Your task to perform on an android device: set an alarm Image 0: 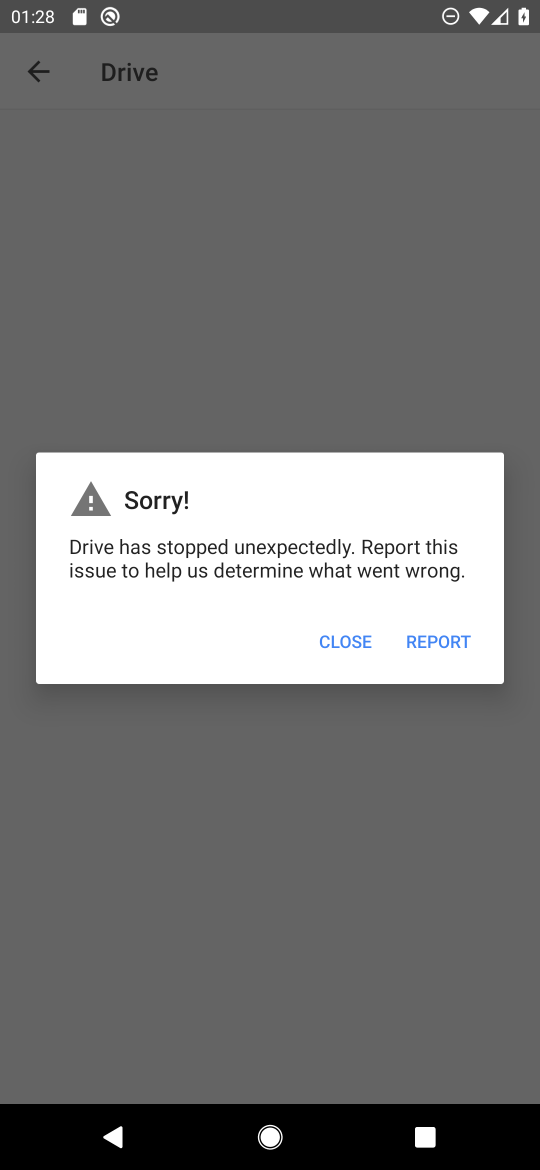
Step 0: press back button
Your task to perform on an android device: set an alarm Image 1: 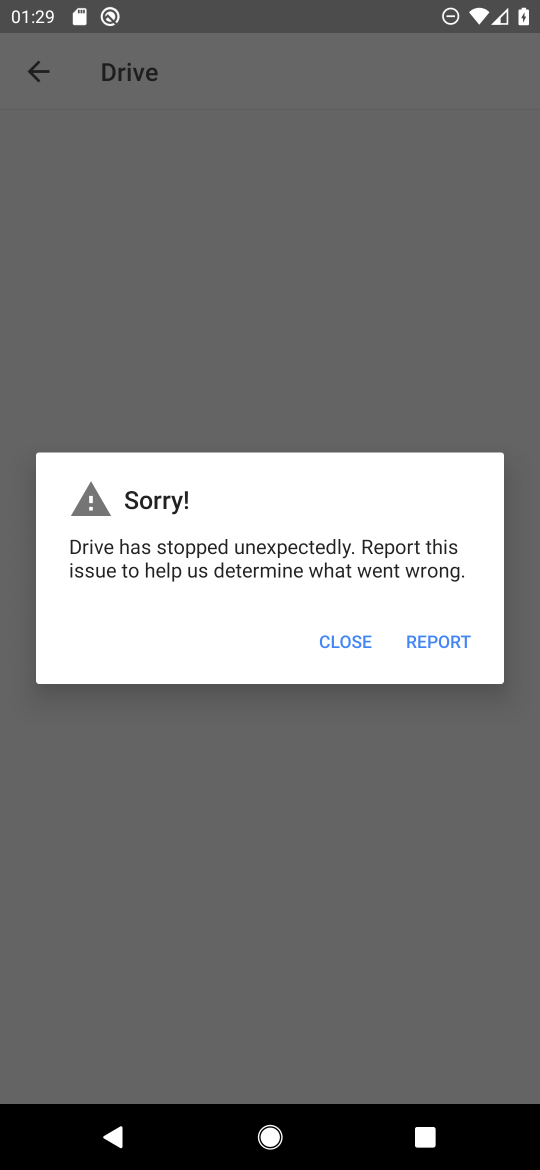
Step 1: click (340, 634)
Your task to perform on an android device: set an alarm Image 2: 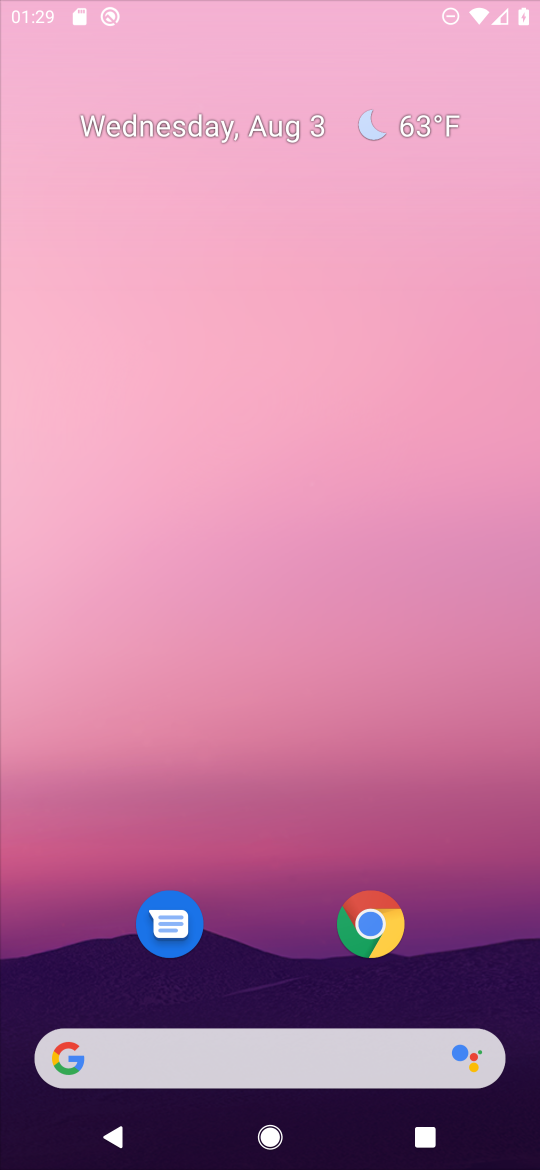
Step 2: press back button
Your task to perform on an android device: set an alarm Image 3: 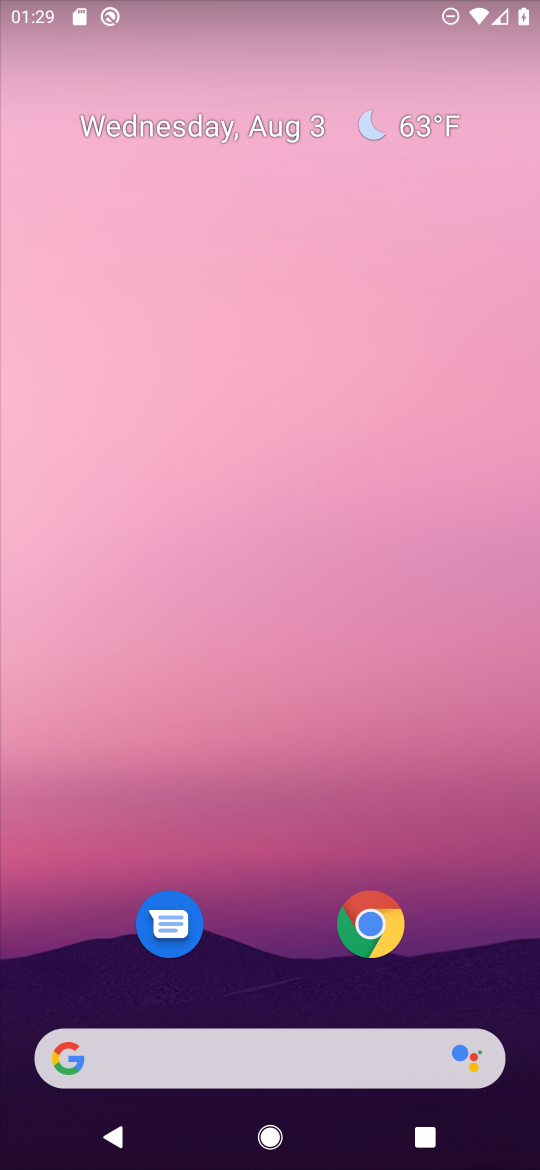
Step 3: drag from (342, 173) to (362, 0)
Your task to perform on an android device: set an alarm Image 4: 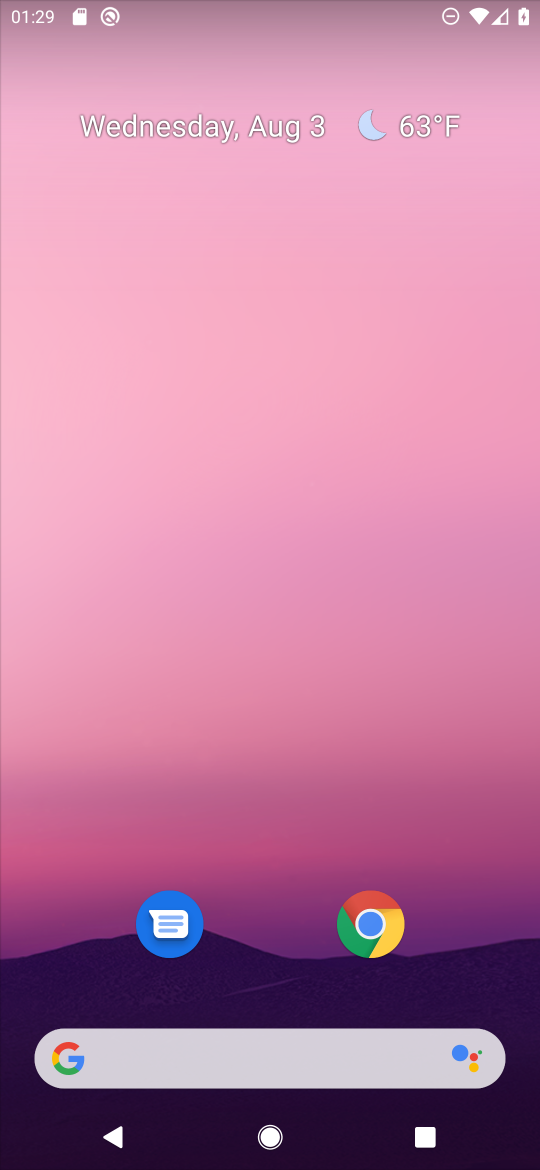
Step 4: drag from (247, 591) to (286, 45)
Your task to perform on an android device: set an alarm Image 5: 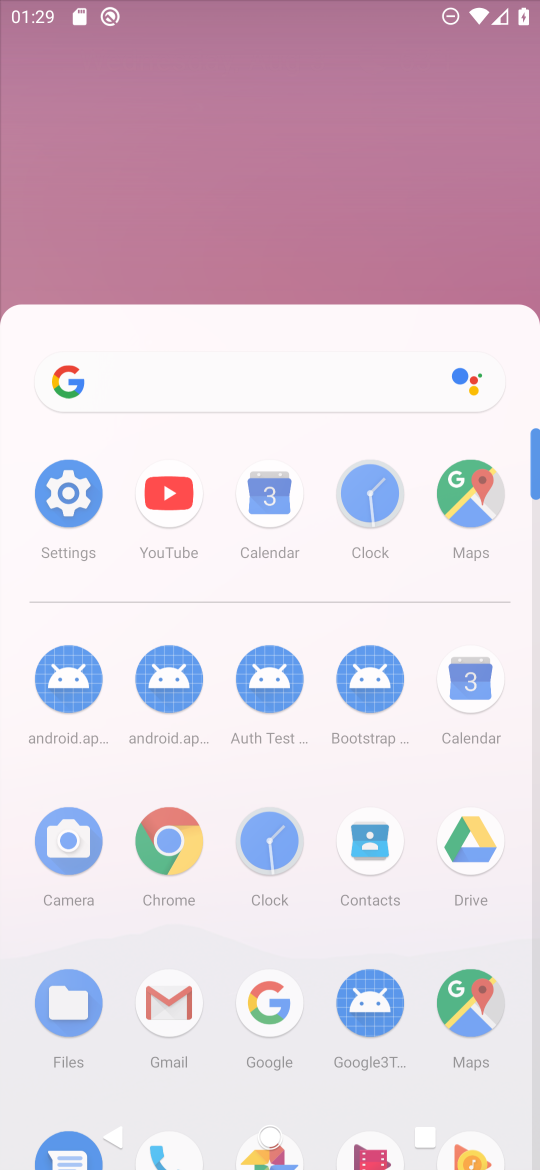
Step 5: click (371, 590)
Your task to perform on an android device: set an alarm Image 6: 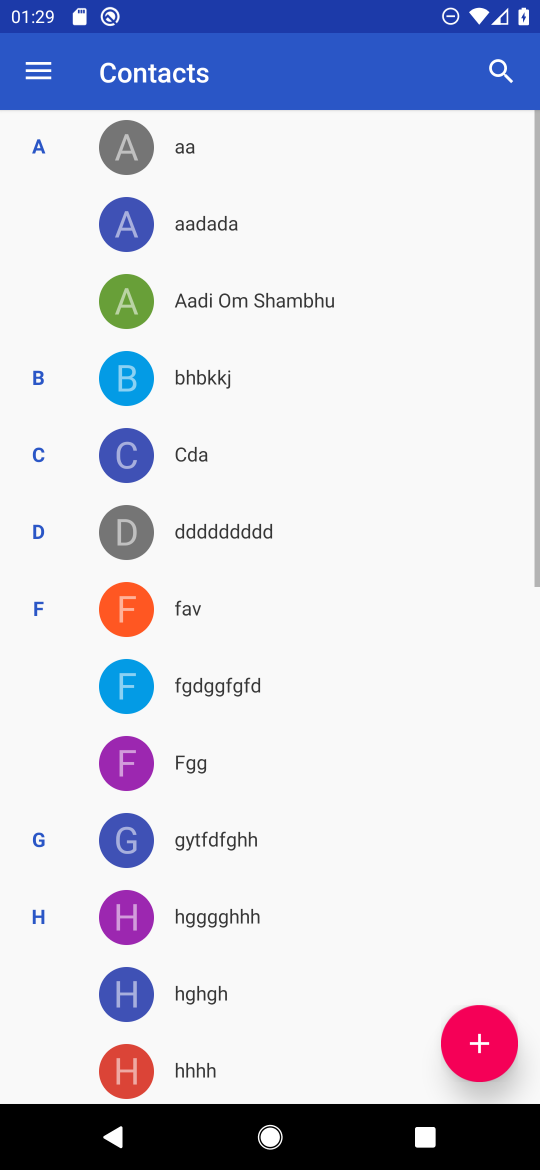
Step 6: press back button
Your task to perform on an android device: set an alarm Image 7: 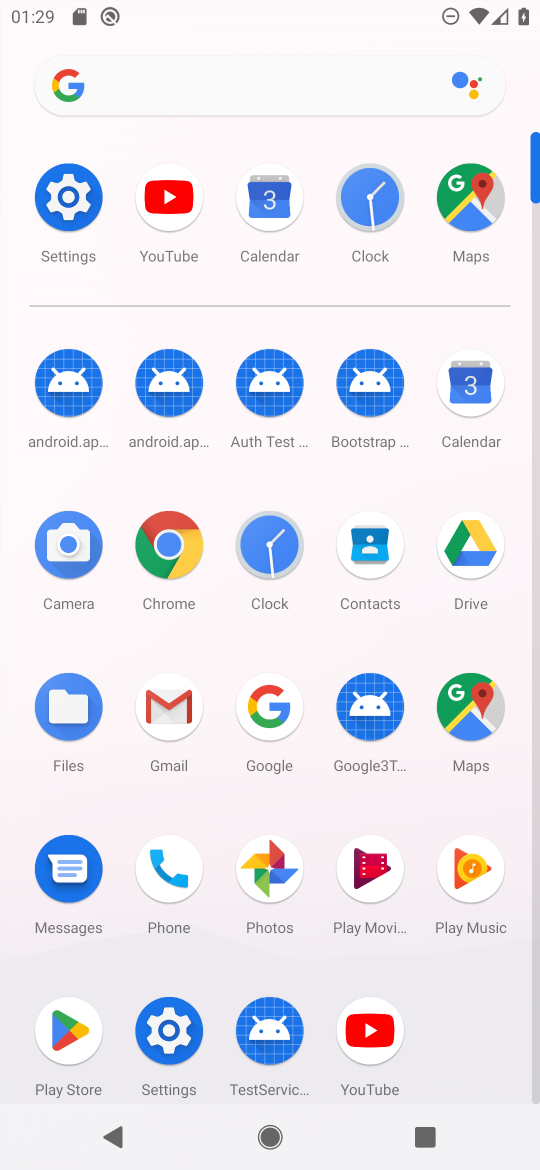
Step 7: click (369, 192)
Your task to perform on an android device: set an alarm Image 8: 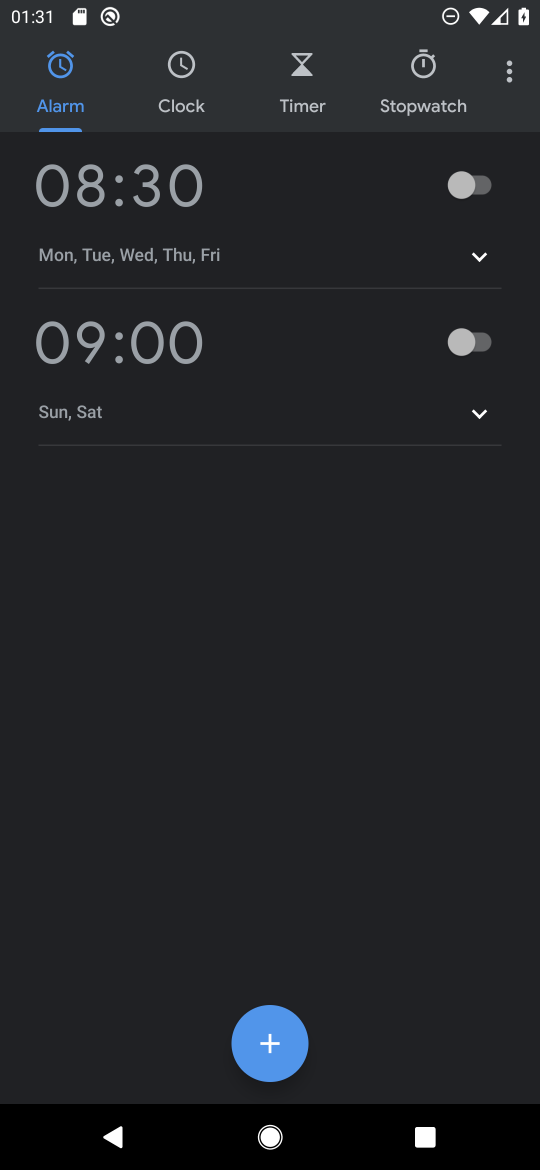
Step 8: click (474, 190)
Your task to perform on an android device: set an alarm Image 9: 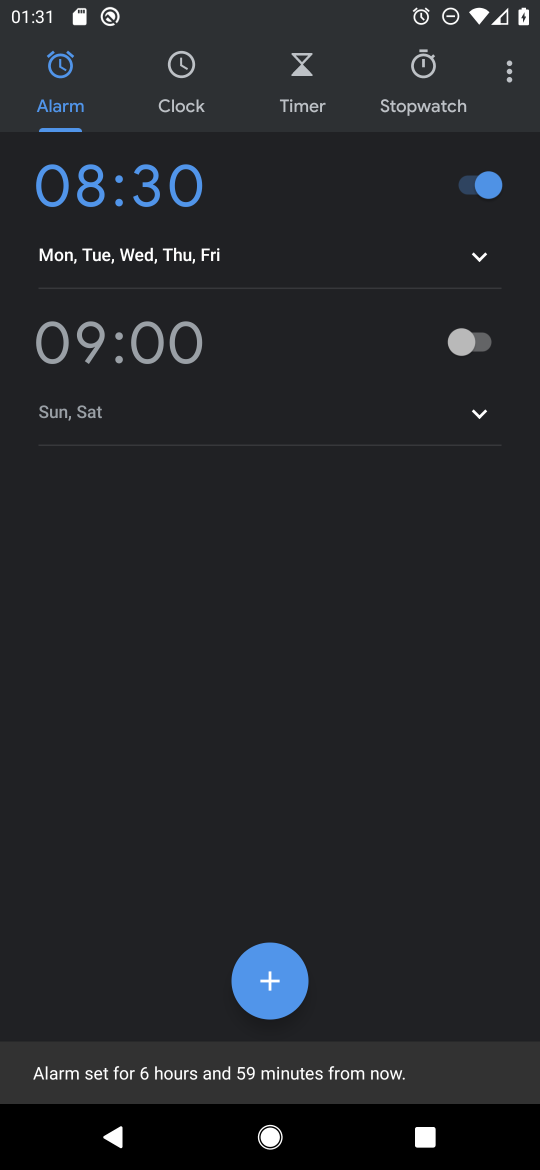
Step 9: task complete